Your task to perform on an android device: make emails show in primary in the gmail app Image 0: 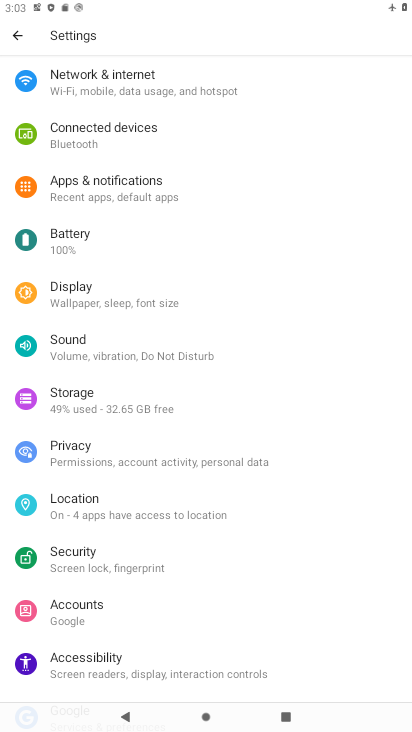
Step 0: press home button
Your task to perform on an android device: make emails show in primary in the gmail app Image 1: 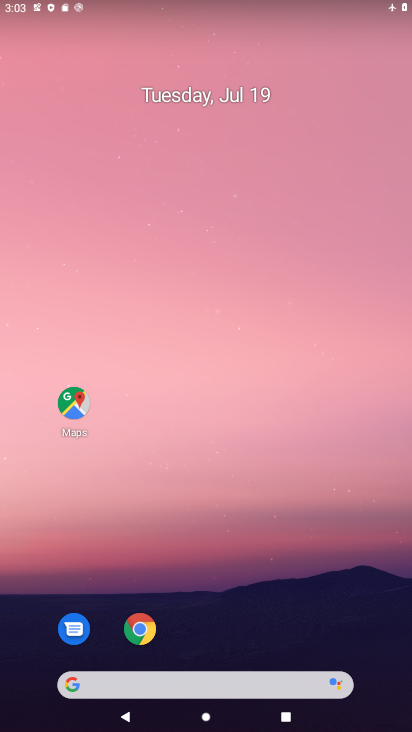
Step 1: drag from (191, 682) to (144, 20)
Your task to perform on an android device: make emails show in primary in the gmail app Image 2: 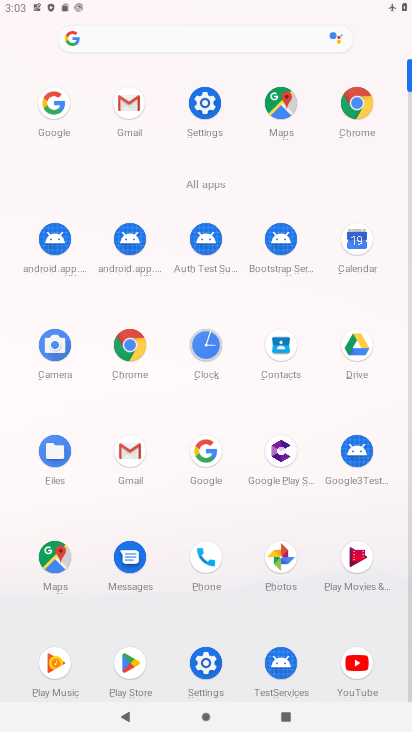
Step 2: click (140, 455)
Your task to perform on an android device: make emails show in primary in the gmail app Image 3: 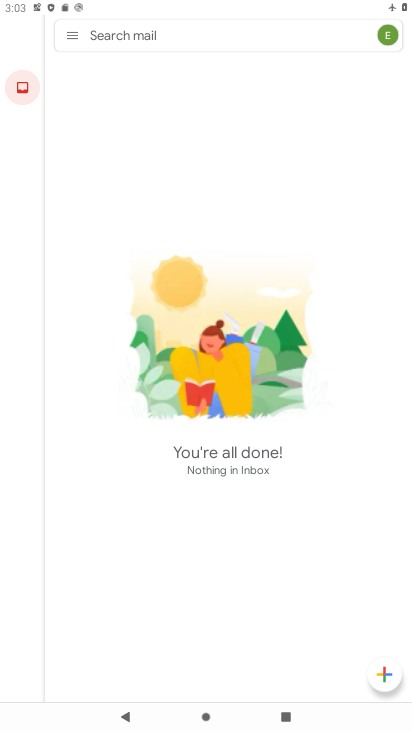
Step 3: click (63, 41)
Your task to perform on an android device: make emails show in primary in the gmail app Image 4: 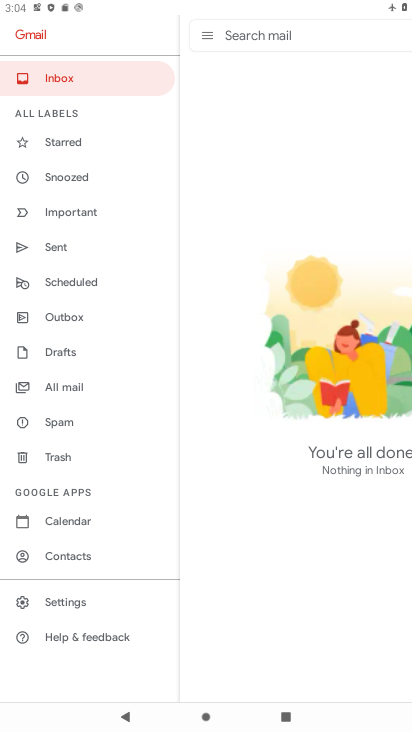
Step 4: click (53, 604)
Your task to perform on an android device: make emails show in primary in the gmail app Image 5: 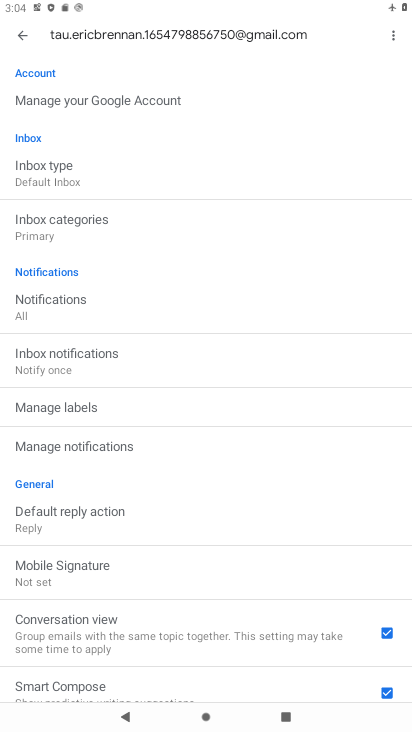
Step 5: click (33, 163)
Your task to perform on an android device: make emails show in primary in the gmail app Image 6: 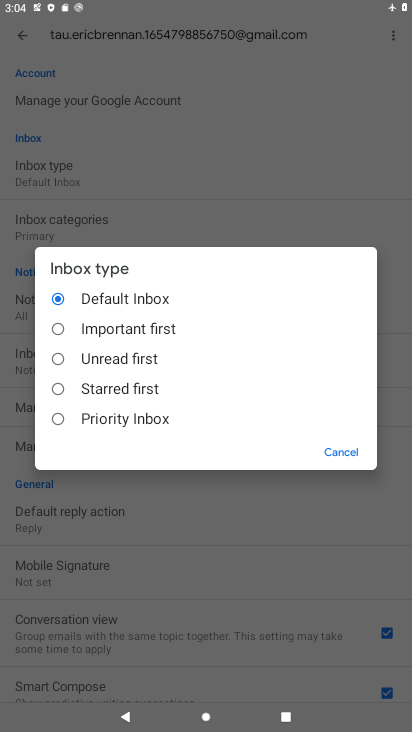
Step 6: click (329, 452)
Your task to perform on an android device: make emails show in primary in the gmail app Image 7: 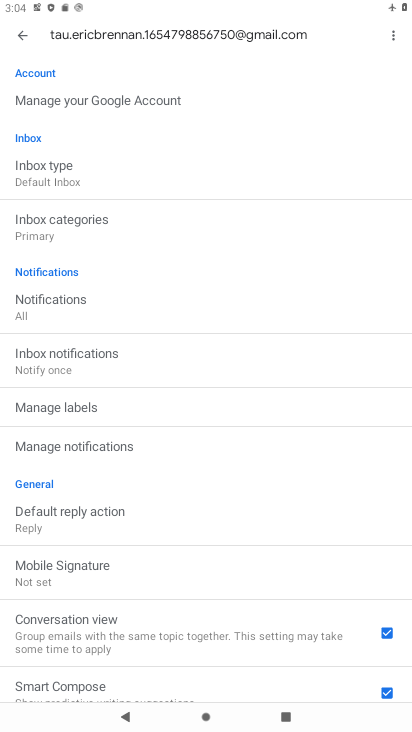
Step 7: click (87, 228)
Your task to perform on an android device: make emails show in primary in the gmail app Image 8: 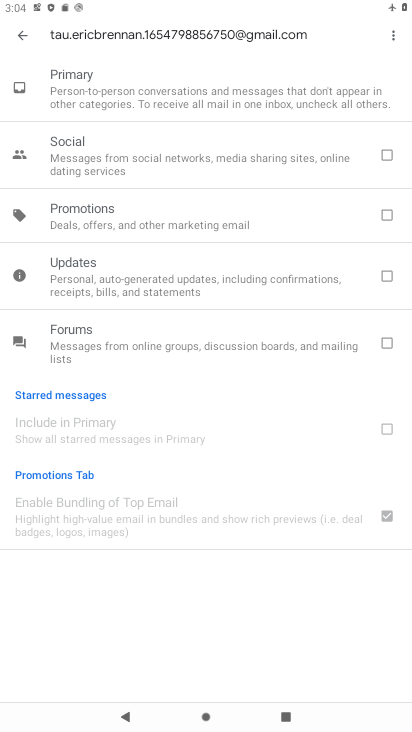
Step 8: task complete